Your task to perform on an android device: turn smart compose on in the gmail app Image 0: 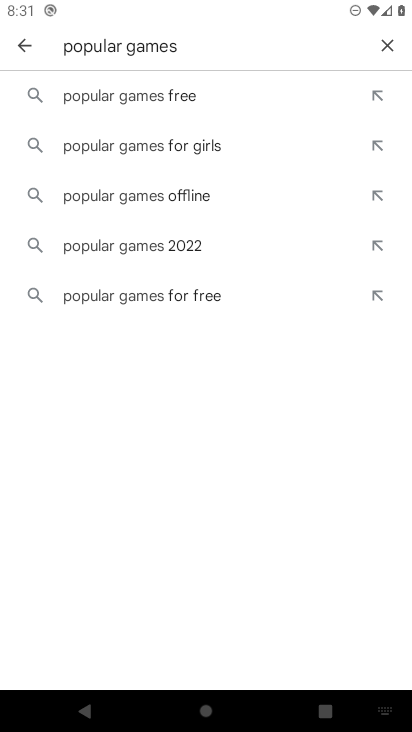
Step 0: press home button
Your task to perform on an android device: turn smart compose on in the gmail app Image 1: 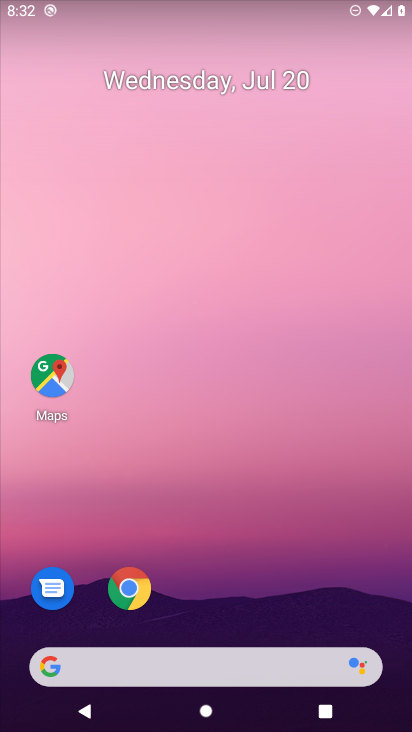
Step 1: drag from (129, 503) to (355, 25)
Your task to perform on an android device: turn smart compose on in the gmail app Image 2: 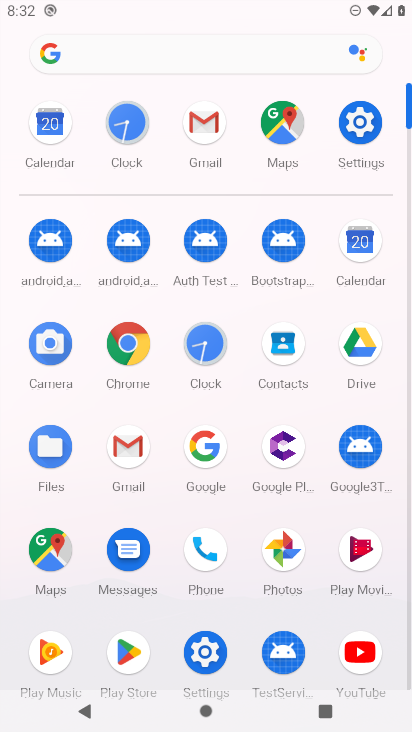
Step 2: click (125, 440)
Your task to perform on an android device: turn smart compose on in the gmail app Image 3: 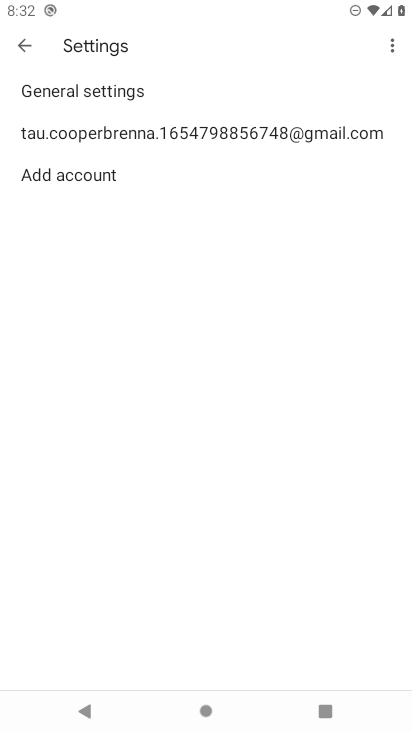
Step 3: click (93, 79)
Your task to perform on an android device: turn smart compose on in the gmail app Image 4: 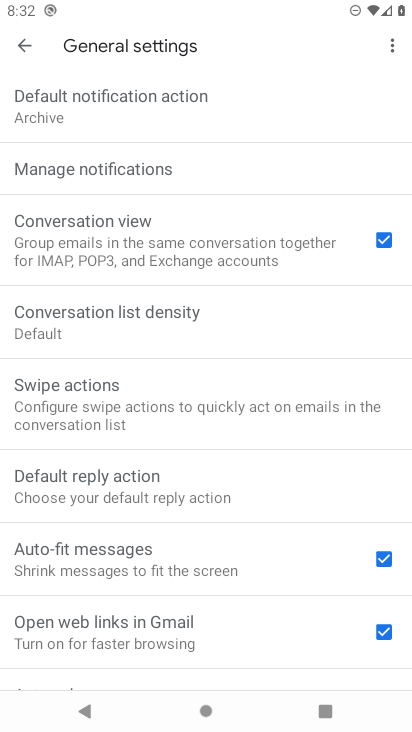
Step 4: drag from (206, 617) to (297, 8)
Your task to perform on an android device: turn smart compose on in the gmail app Image 5: 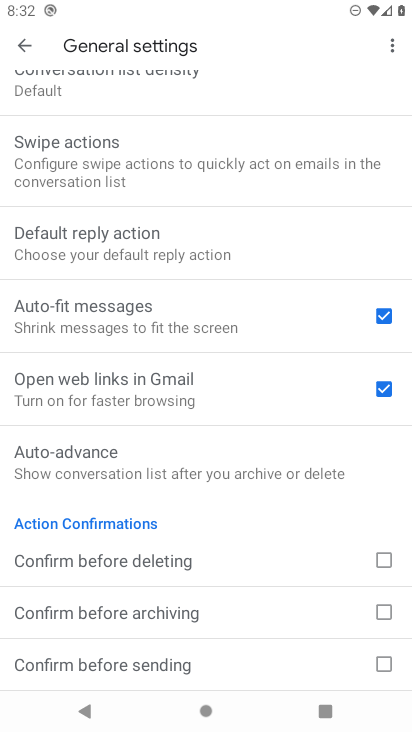
Step 5: click (31, 37)
Your task to perform on an android device: turn smart compose on in the gmail app Image 6: 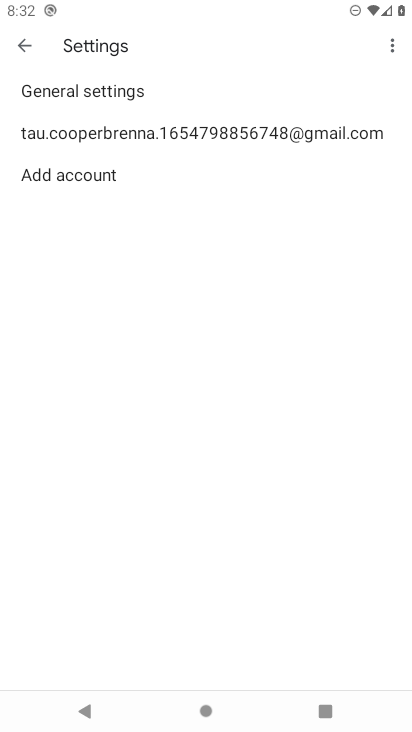
Step 6: click (148, 119)
Your task to perform on an android device: turn smart compose on in the gmail app Image 7: 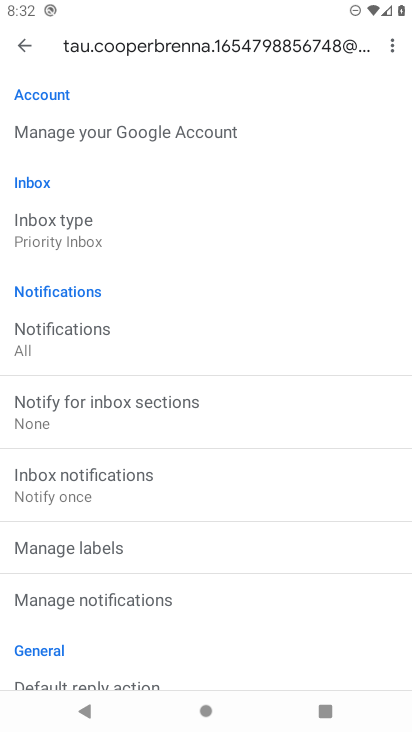
Step 7: task complete